Your task to perform on an android device: Is it going to rain tomorrow? Image 0: 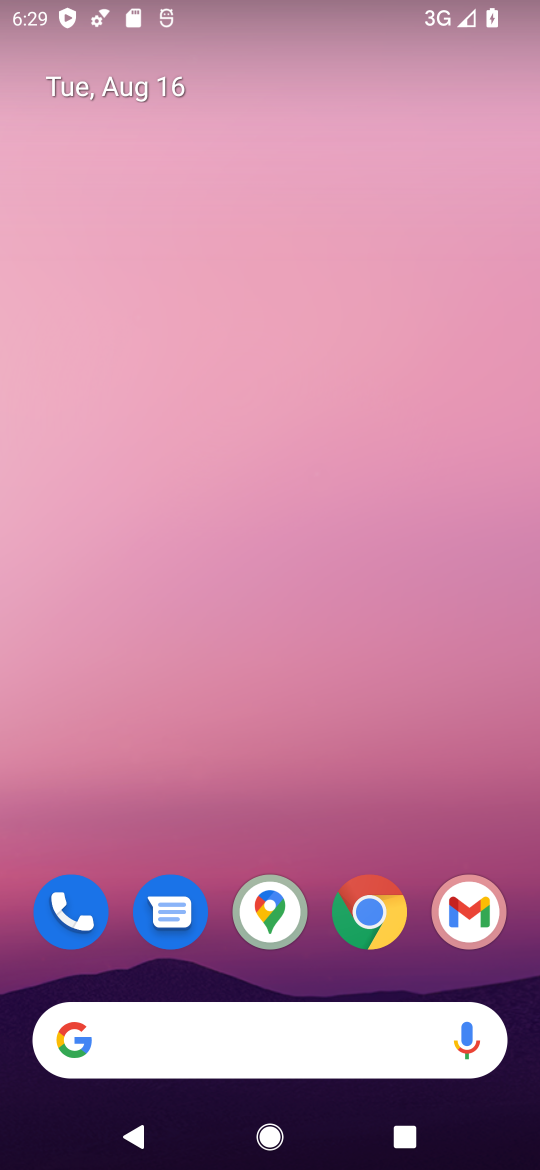
Step 0: drag from (13, 553) to (539, 534)
Your task to perform on an android device: Is it going to rain tomorrow? Image 1: 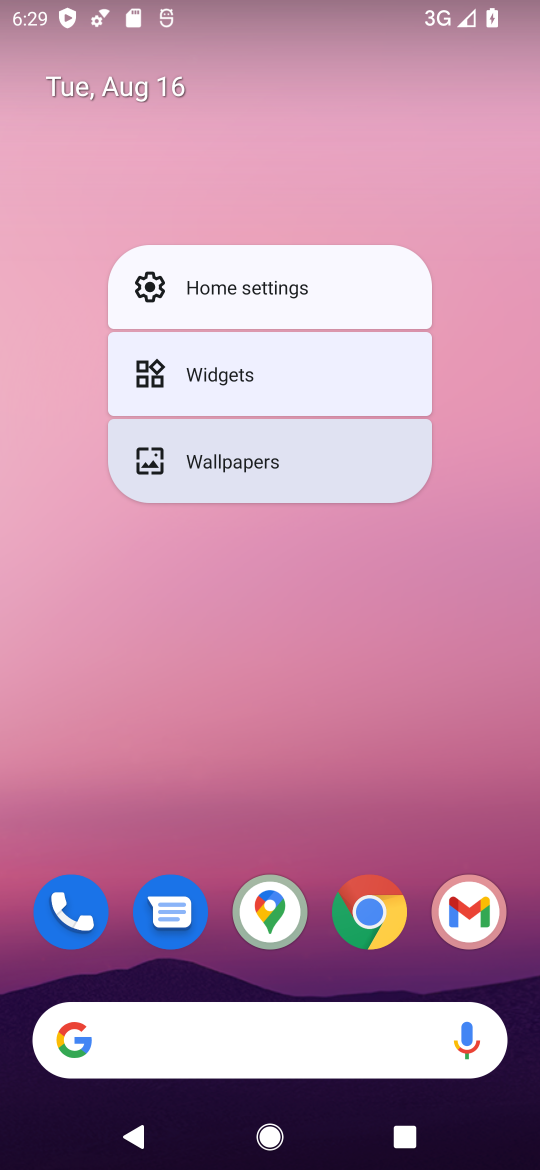
Step 1: drag from (7, 592) to (516, 672)
Your task to perform on an android device: Is it going to rain tomorrow? Image 2: 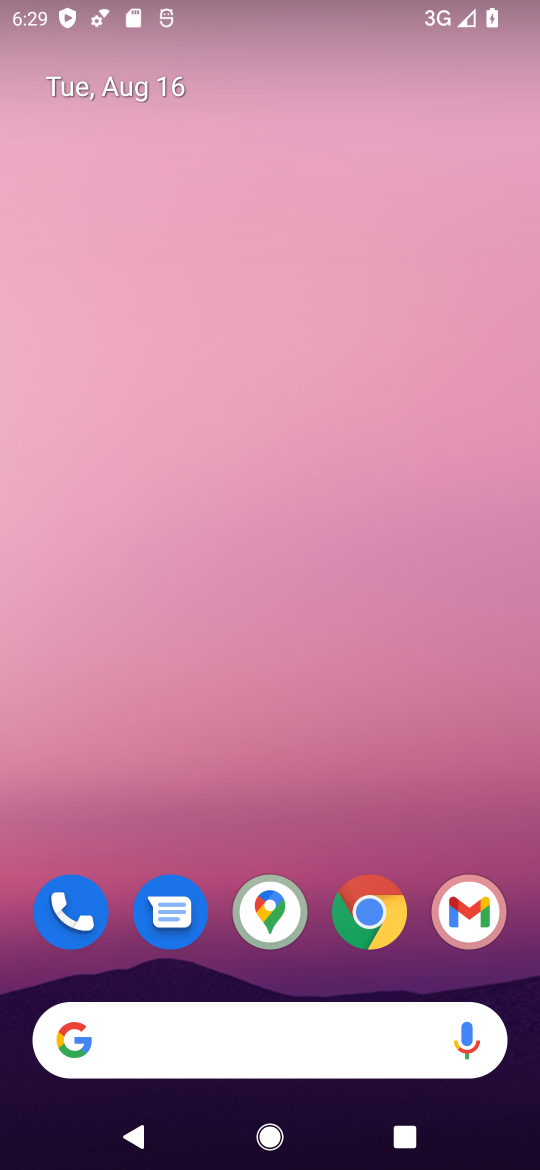
Step 2: click (187, 1034)
Your task to perform on an android device: Is it going to rain tomorrow? Image 3: 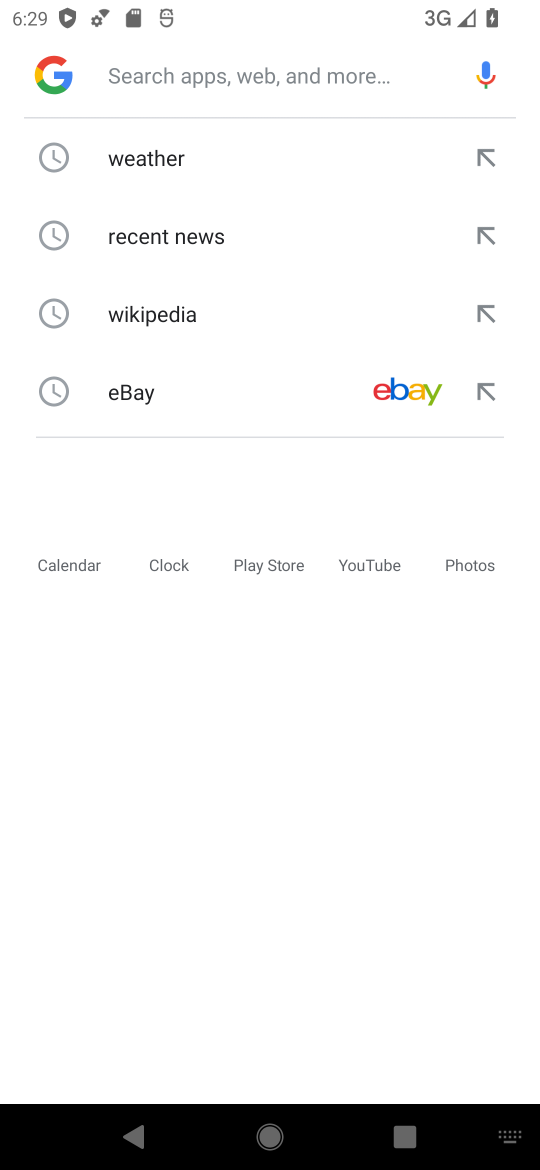
Step 3: click (138, 150)
Your task to perform on an android device: Is it going to rain tomorrow? Image 4: 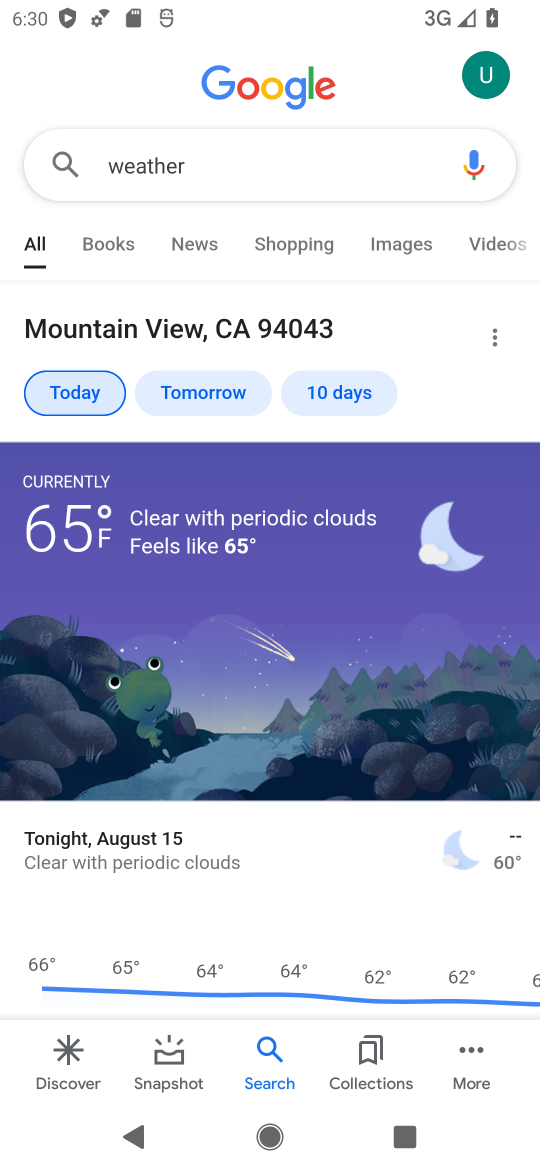
Step 4: click (200, 386)
Your task to perform on an android device: Is it going to rain tomorrow? Image 5: 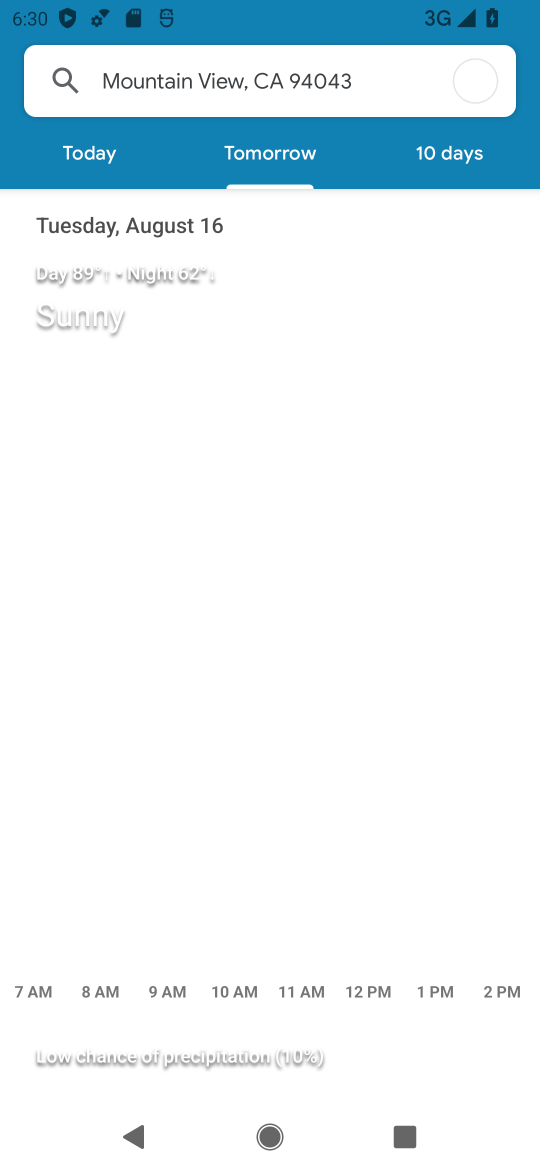
Step 5: task complete